Your task to perform on an android device: check out phone information Image 0: 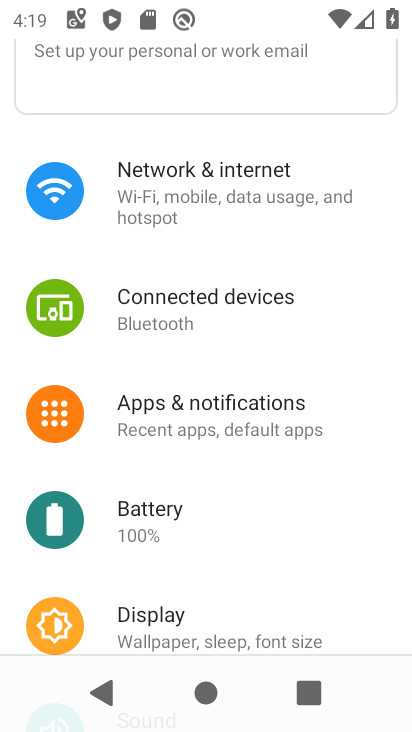
Step 0: drag from (311, 559) to (262, 159)
Your task to perform on an android device: check out phone information Image 1: 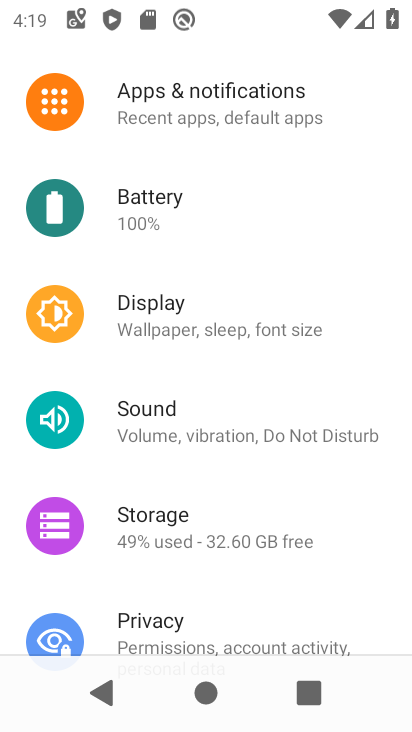
Step 1: drag from (302, 598) to (307, 204)
Your task to perform on an android device: check out phone information Image 2: 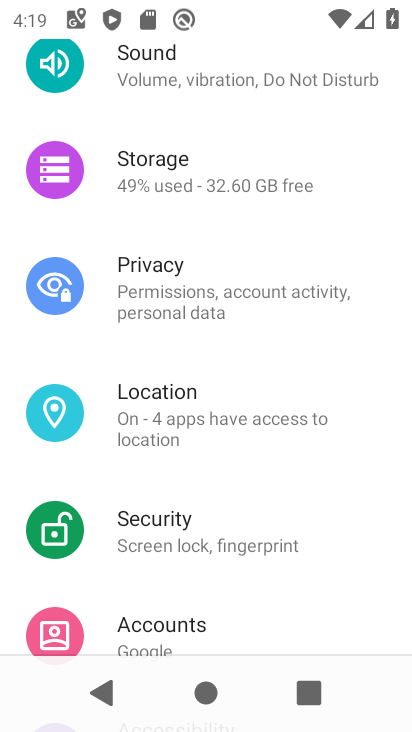
Step 2: drag from (258, 586) to (273, 185)
Your task to perform on an android device: check out phone information Image 3: 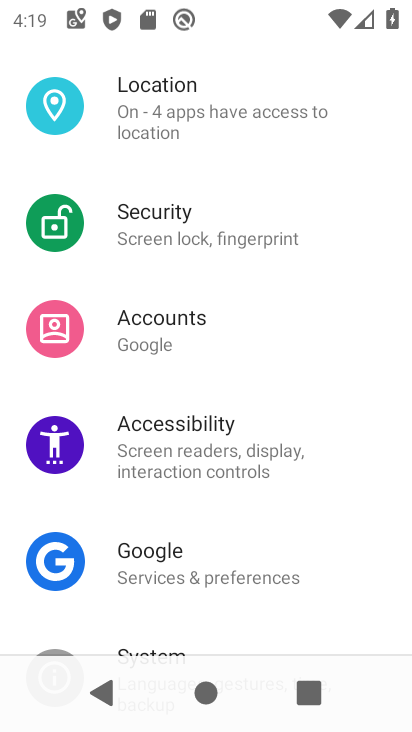
Step 3: drag from (247, 582) to (280, 106)
Your task to perform on an android device: check out phone information Image 4: 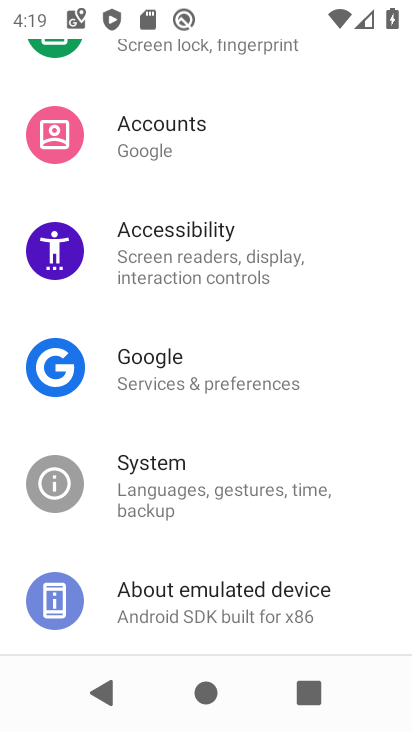
Step 4: click (171, 592)
Your task to perform on an android device: check out phone information Image 5: 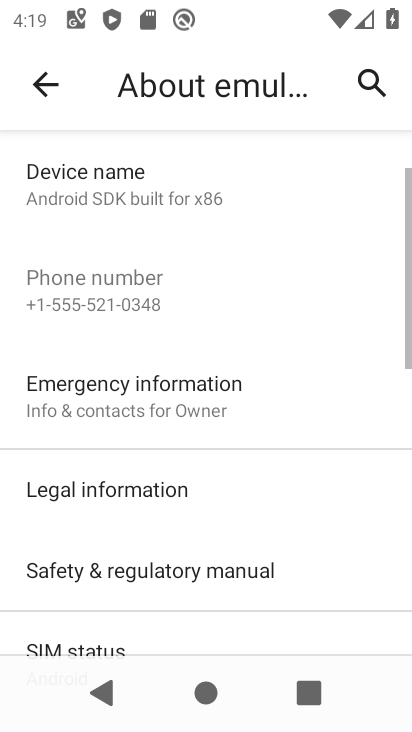
Step 5: task complete